Your task to perform on an android device: open the mobile data screen to see how much data has been used Image 0: 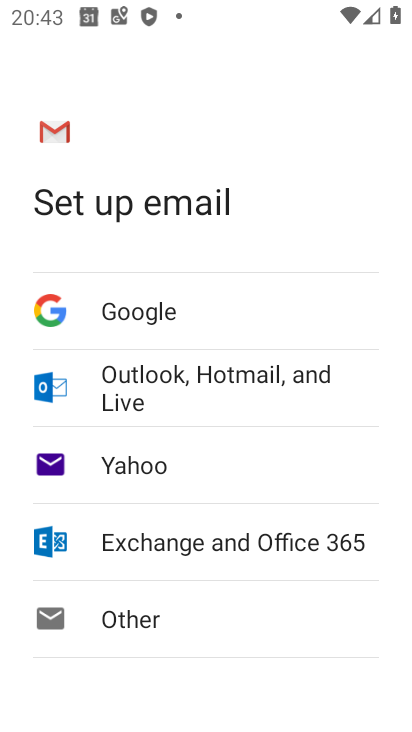
Step 0: press home button
Your task to perform on an android device: open the mobile data screen to see how much data has been used Image 1: 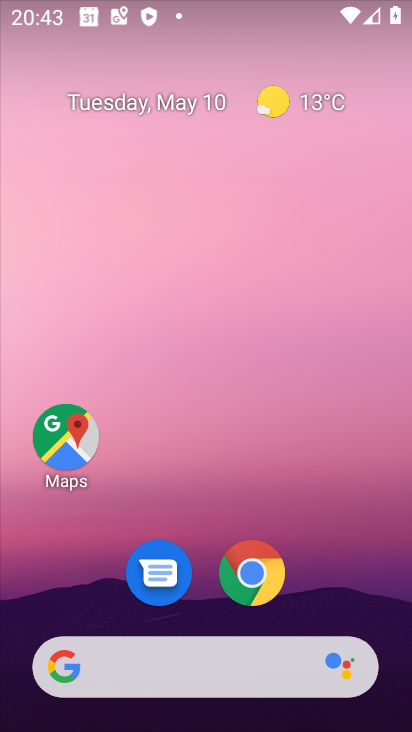
Step 1: drag from (370, 637) to (340, 4)
Your task to perform on an android device: open the mobile data screen to see how much data has been used Image 2: 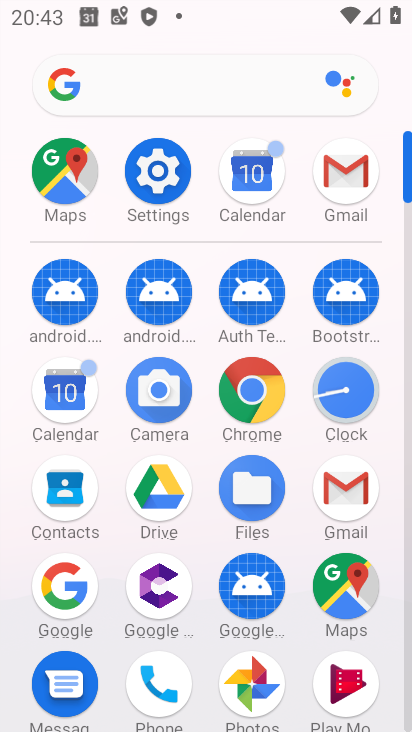
Step 2: click (162, 172)
Your task to perform on an android device: open the mobile data screen to see how much data has been used Image 3: 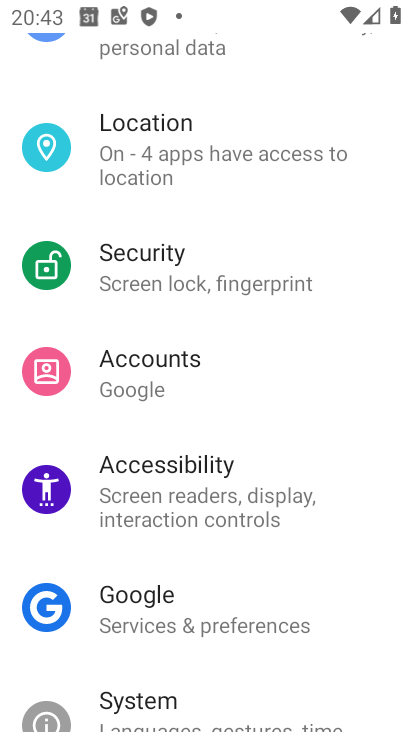
Step 3: drag from (360, 145) to (359, 587)
Your task to perform on an android device: open the mobile data screen to see how much data has been used Image 4: 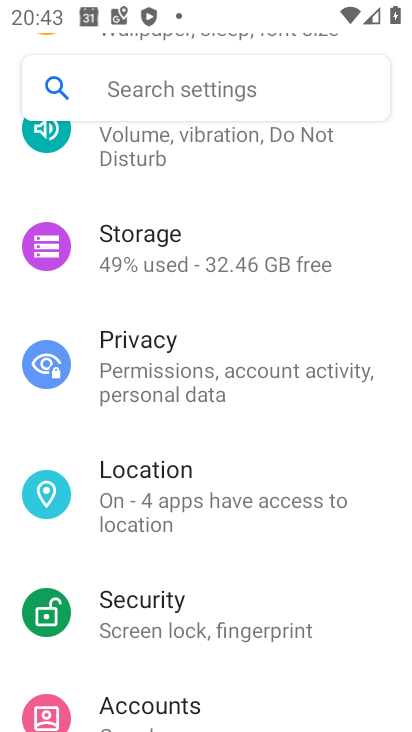
Step 4: drag from (352, 245) to (357, 594)
Your task to perform on an android device: open the mobile data screen to see how much data has been used Image 5: 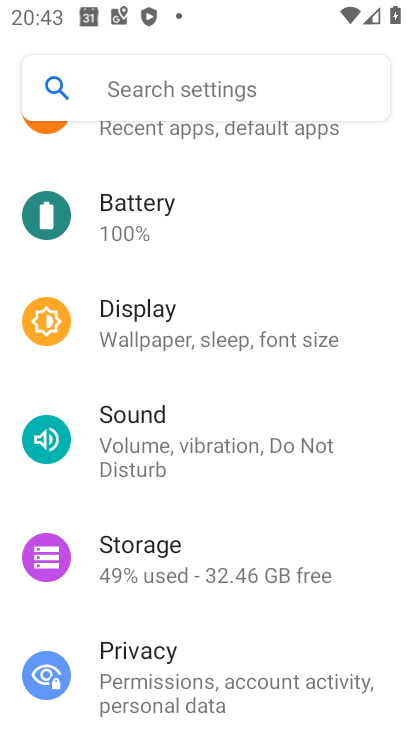
Step 5: drag from (350, 232) to (348, 711)
Your task to perform on an android device: open the mobile data screen to see how much data has been used Image 6: 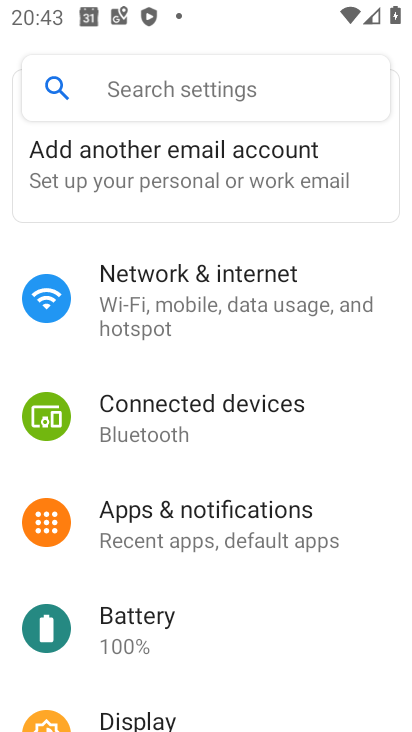
Step 6: click (138, 272)
Your task to perform on an android device: open the mobile data screen to see how much data has been used Image 7: 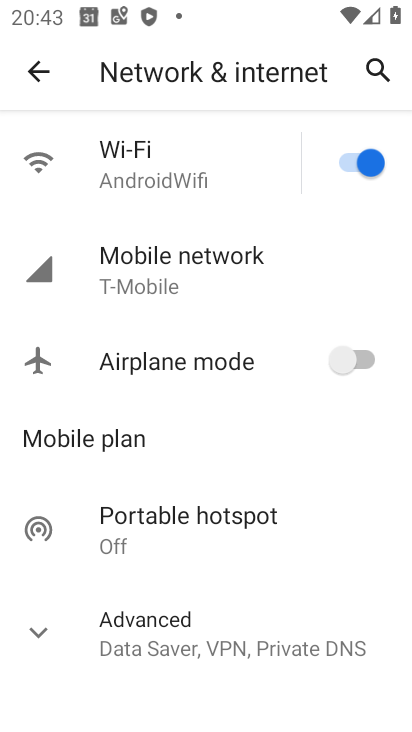
Step 7: click (138, 272)
Your task to perform on an android device: open the mobile data screen to see how much data has been used Image 8: 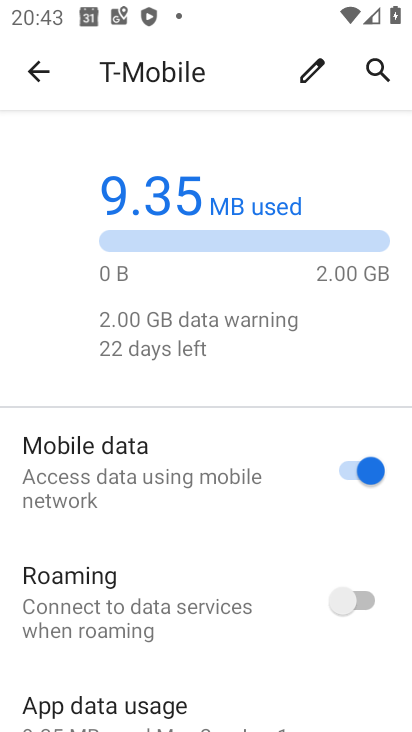
Step 8: click (90, 698)
Your task to perform on an android device: open the mobile data screen to see how much data has been used Image 9: 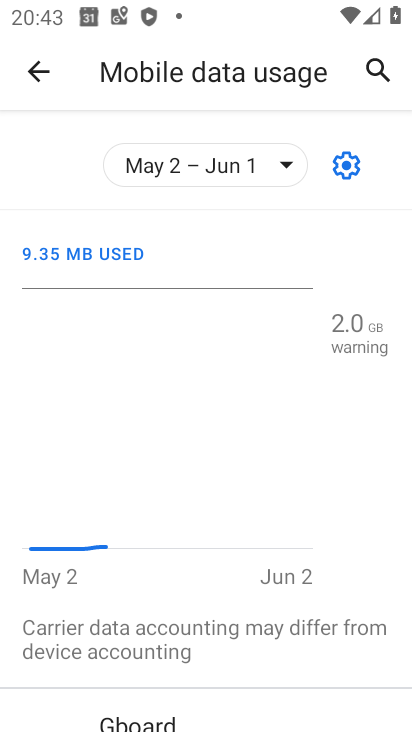
Step 9: task complete